Your task to perform on an android device: turn off improve location accuracy Image 0: 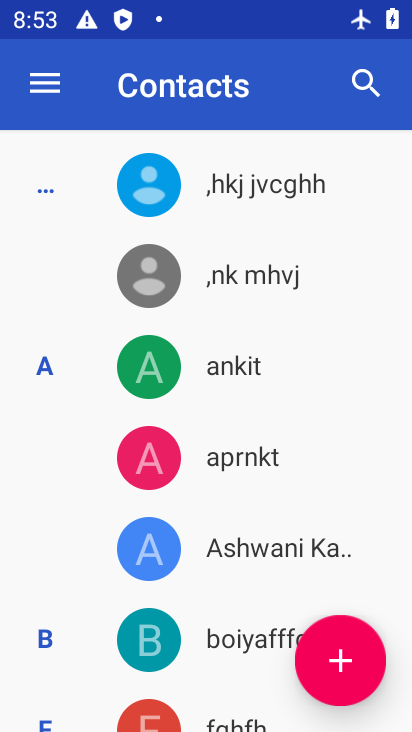
Step 0: press back button
Your task to perform on an android device: turn off improve location accuracy Image 1: 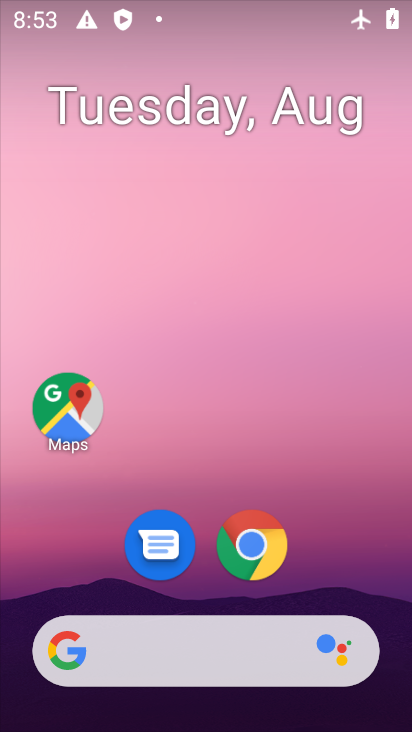
Step 1: drag from (182, 260) to (256, 83)
Your task to perform on an android device: turn off improve location accuracy Image 2: 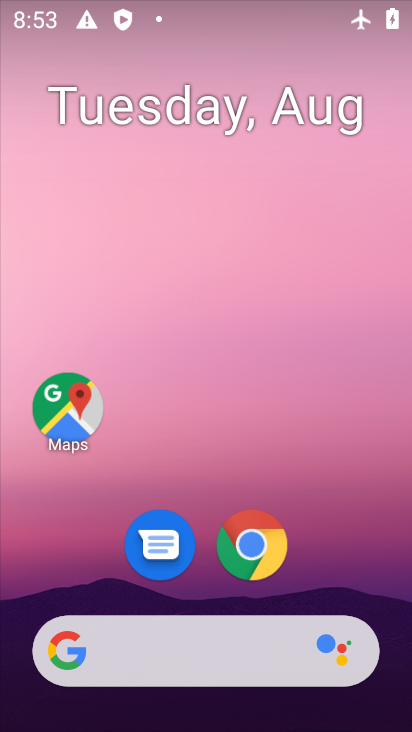
Step 2: drag from (86, 434) to (232, 48)
Your task to perform on an android device: turn off improve location accuracy Image 3: 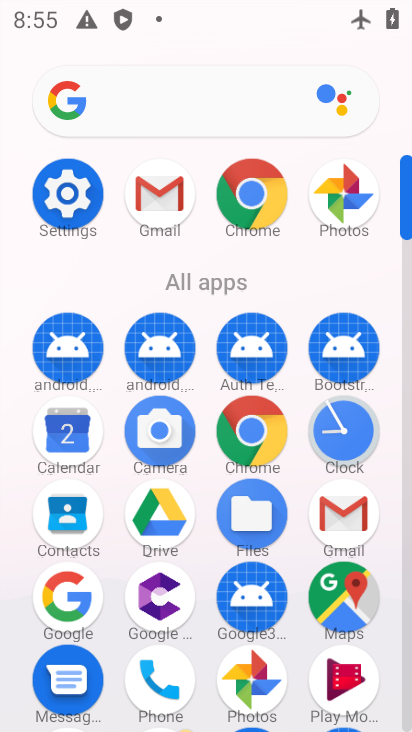
Step 3: click (59, 193)
Your task to perform on an android device: turn off improve location accuracy Image 4: 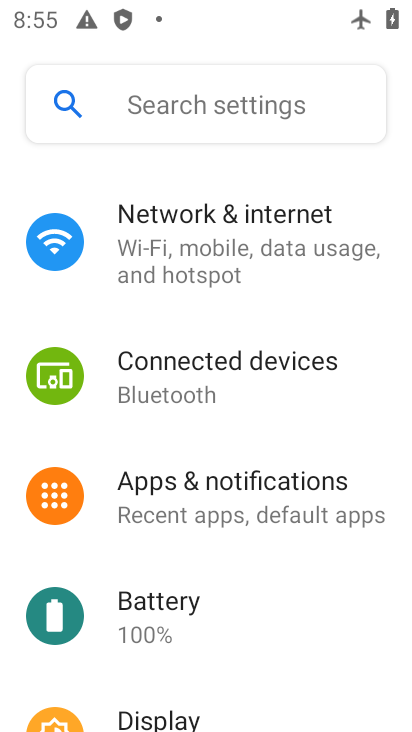
Step 4: drag from (341, 2) to (330, 491)
Your task to perform on an android device: turn off improve location accuracy Image 5: 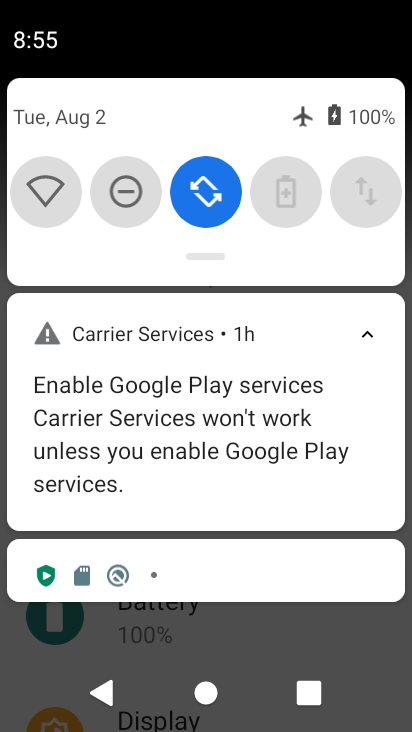
Step 5: drag from (303, 262) to (294, 629)
Your task to perform on an android device: turn off improve location accuracy Image 6: 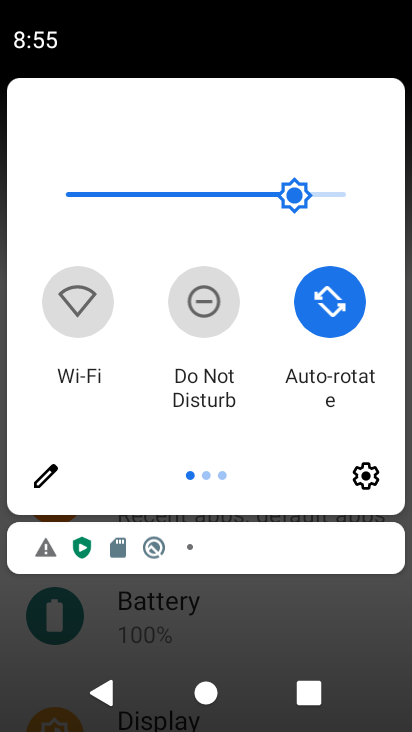
Step 6: drag from (348, 389) to (9, 300)
Your task to perform on an android device: turn off improve location accuracy Image 7: 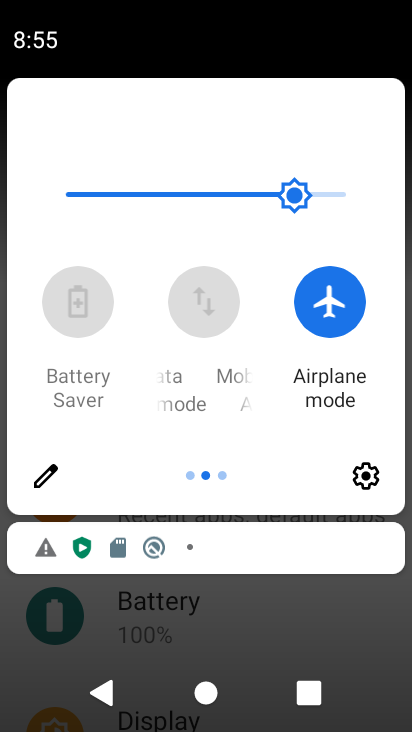
Step 7: click (310, 300)
Your task to perform on an android device: turn off improve location accuracy Image 8: 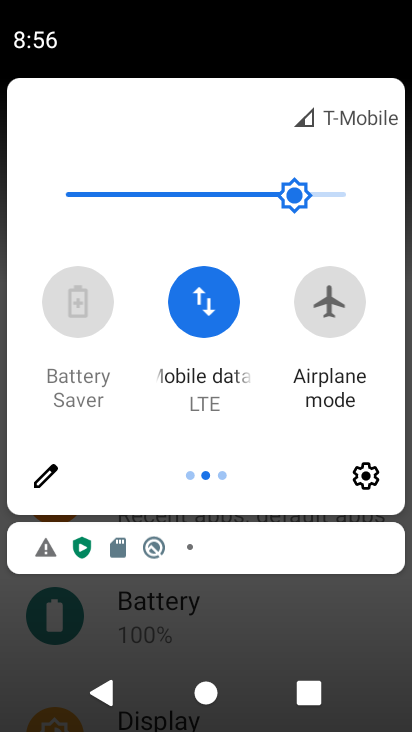
Step 8: click (102, 693)
Your task to perform on an android device: turn off improve location accuracy Image 9: 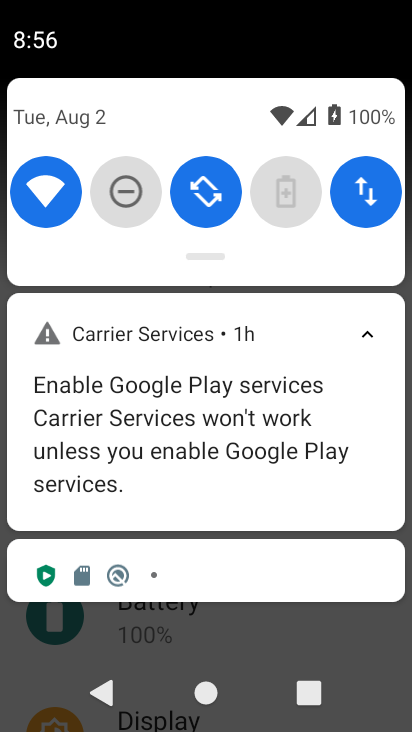
Step 9: click (100, 708)
Your task to perform on an android device: turn off improve location accuracy Image 10: 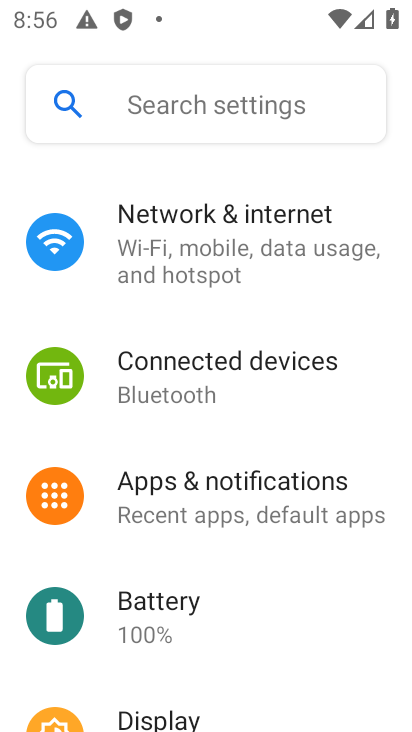
Step 10: drag from (9, 642) to (177, 130)
Your task to perform on an android device: turn off improve location accuracy Image 11: 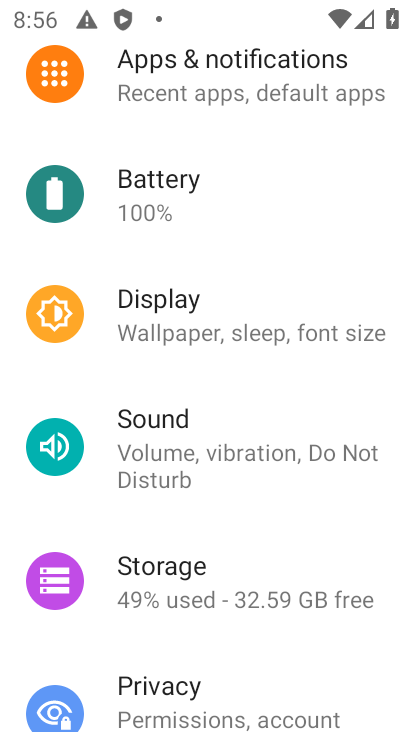
Step 11: drag from (9, 620) to (193, 201)
Your task to perform on an android device: turn off improve location accuracy Image 12: 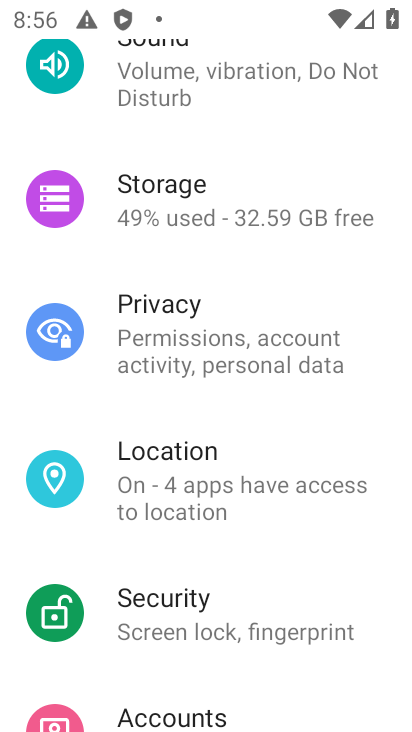
Step 12: click (185, 478)
Your task to perform on an android device: turn off improve location accuracy Image 13: 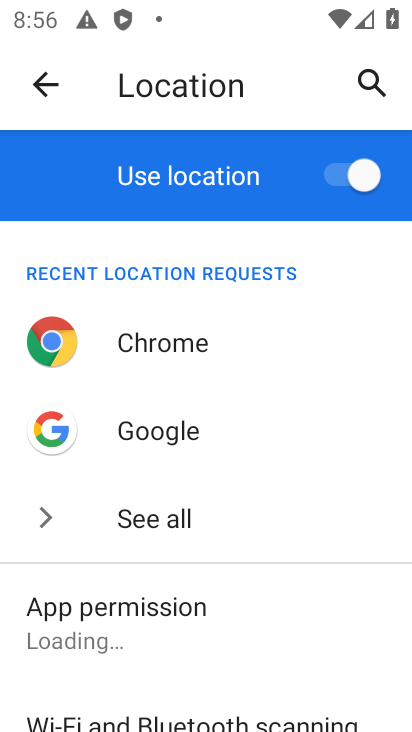
Step 13: drag from (28, 658) to (217, 122)
Your task to perform on an android device: turn off improve location accuracy Image 14: 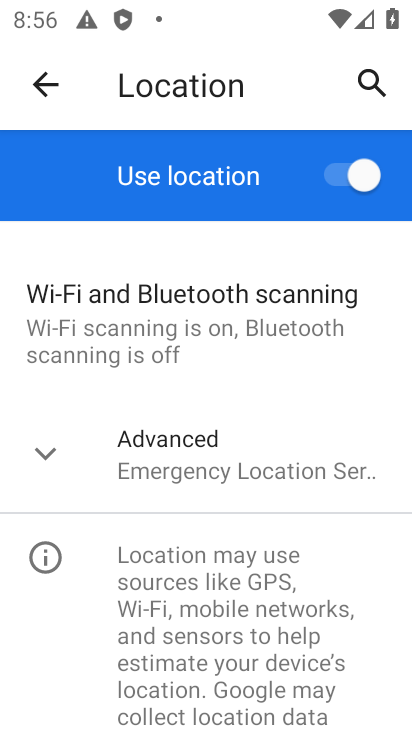
Step 14: click (146, 462)
Your task to perform on an android device: turn off improve location accuracy Image 15: 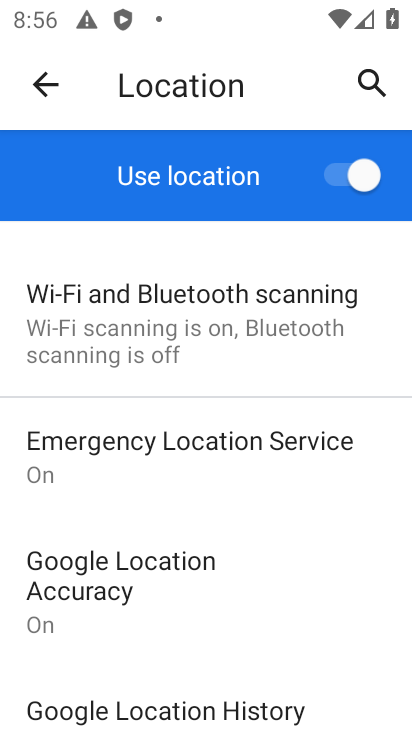
Step 15: click (115, 588)
Your task to perform on an android device: turn off improve location accuracy Image 16: 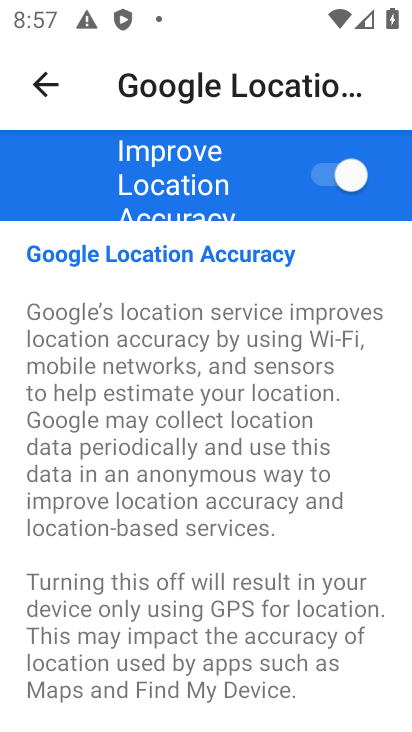
Step 16: click (358, 174)
Your task to perform on an android device: turn off improve location accuracy Image 17: 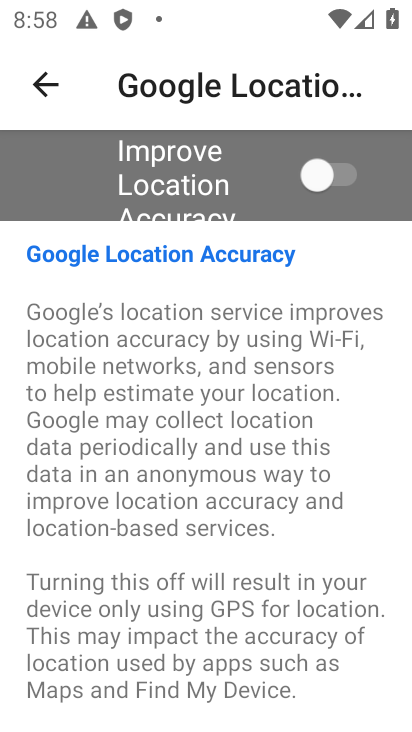
Step 17: task complete